Your task to perform on an android device: What's the weather going to be this weekend? Image 0: 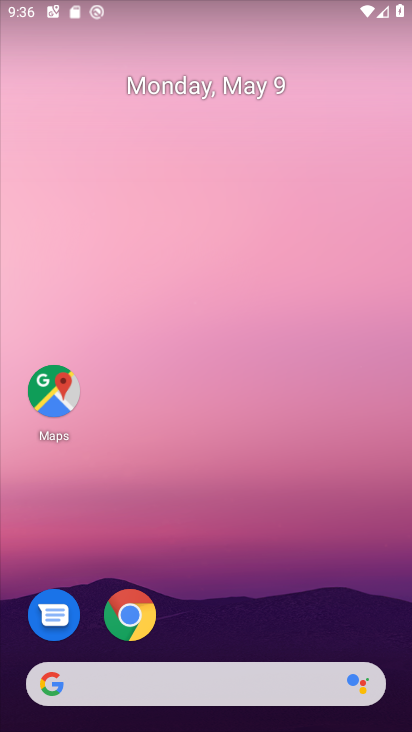
Step 0: drag from (318, 717) to (221, 347)
Your task to perform on an android device: What's the weather going to be this weekend? Image 1: 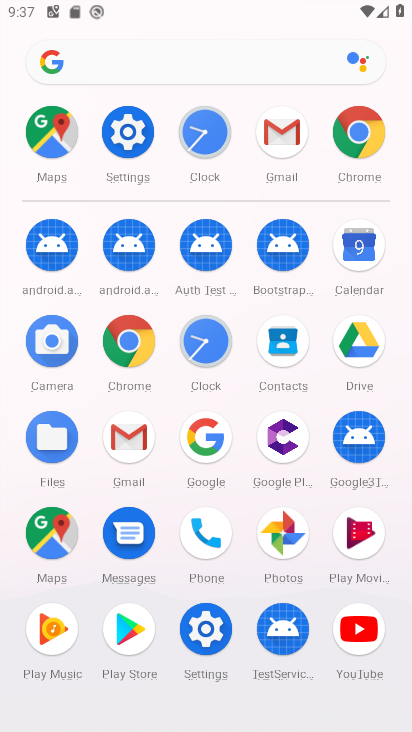
Step 1: click (129, 66)
Your task to perform on an android device: What's the weather going to be this weekend? Image 2: 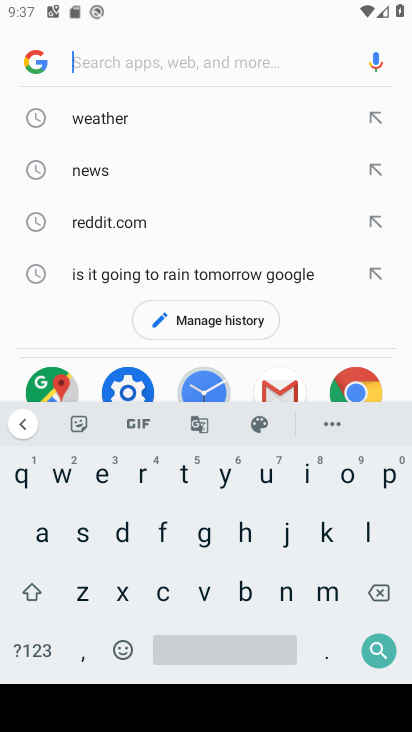
Step 2: click (117, 129)
Your task to perform on an android device: What's the weather going to be this weekend? Image 3: 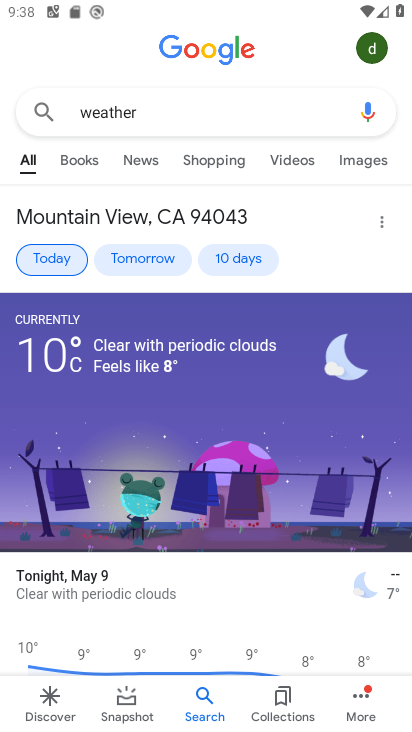
Step 3: click (239, 260)
Your task to perform on an android device: What's the weather going to be this weekend? Image 4: 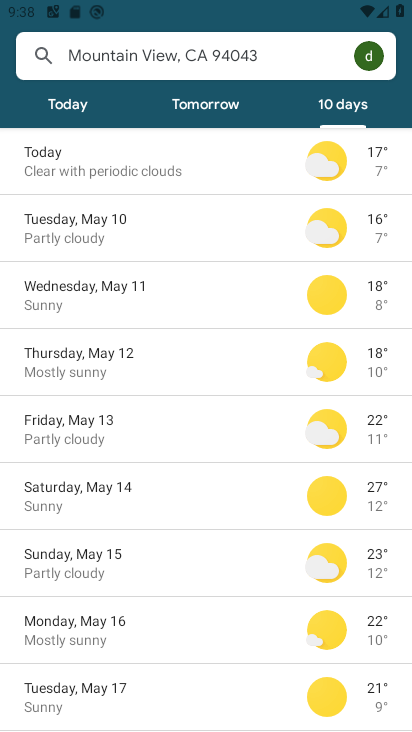
Step 4: task complete